Your task to perform on an android device: Open Google Chrome and open the bookmarks view Image 0: 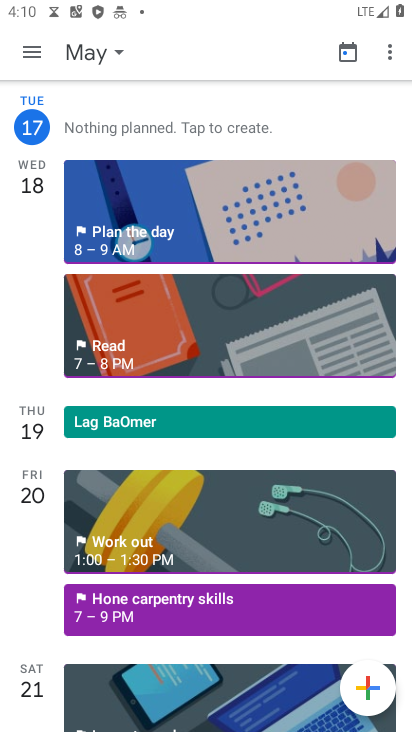
Step 0: press back button
Your task to perform on an android device: Open Google Chrome and open the bookmarks view Image 1: 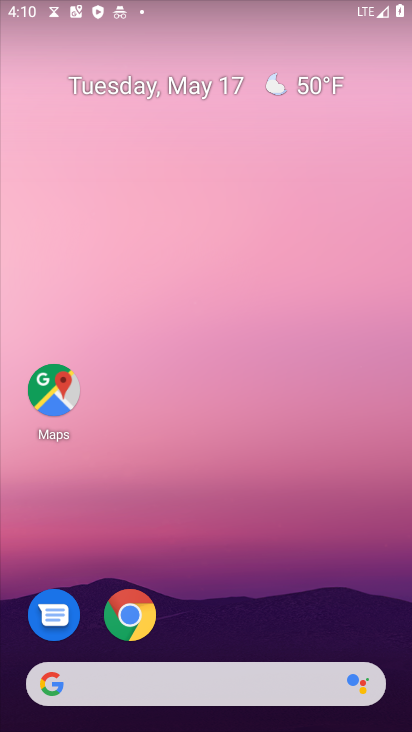
Step 1: drag from (286, 636) to (149, 65)
Your task to perform on an android device: Open Google Chrome and open the bookmarks view Image 2: 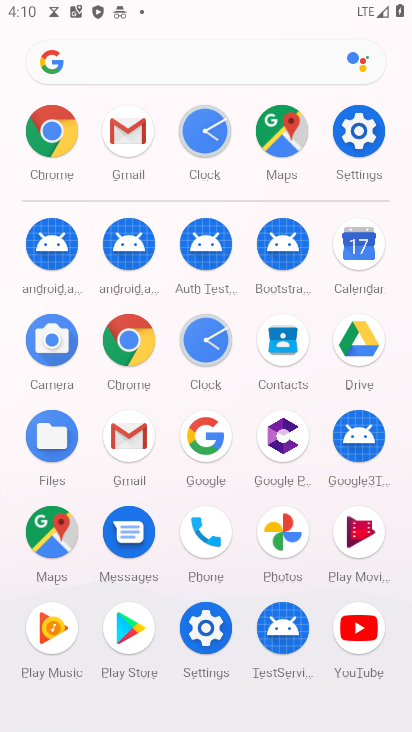
Step 2: click (43, 132)
Your task to perform on an android device: Open Google Chrome and open the bookmarks view Image 3: 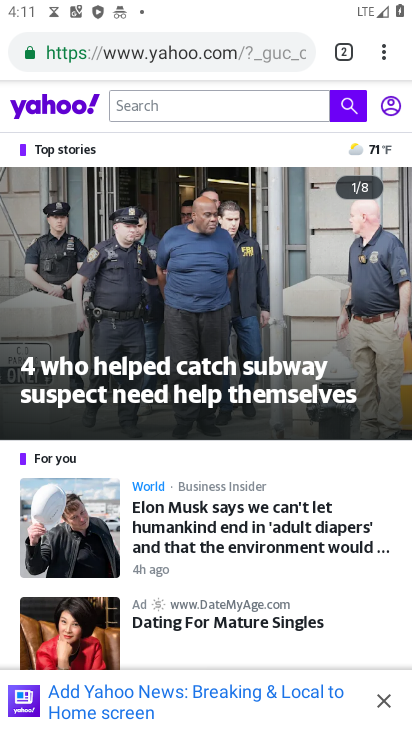
Step 3: click (376, 52)
Your task to perform on an android device: Open Google Chrome and open the bookmarks view Image 4: 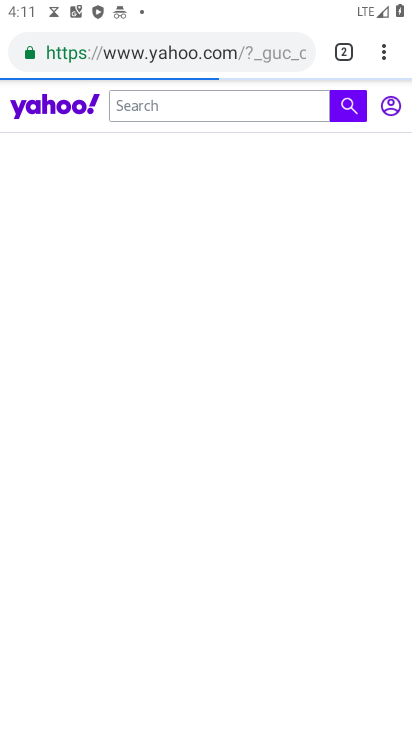
Step 4: drag from (384, 50) to (210, 198)
Your task to perform on an android device: Open Google Chrome and open the bookmarks view Image 5: 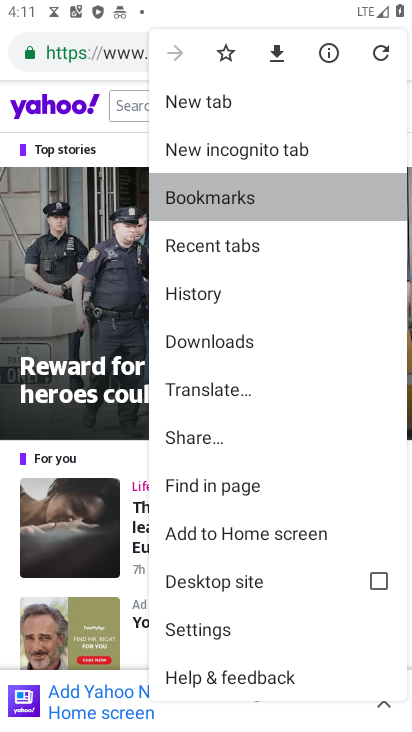
Step 5: click (210, 198)
Your task to perform on an android device: Open Google Chrome and open the bookmarks view Image 6: 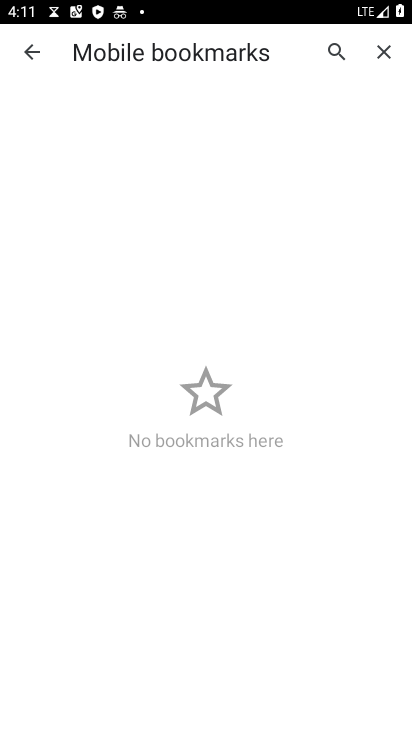
Step 6: task complete